Your task to perform on an android device: turn off javascript in the chrome app Image 0: 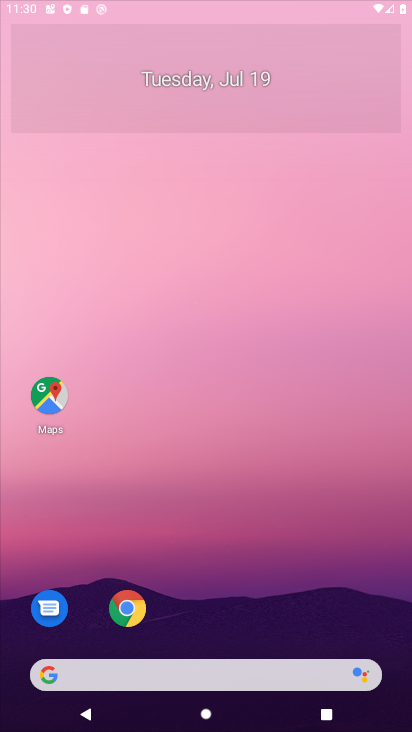
Step 0: press home button
Your task to perform on an android device: turn off javascript in the chrome app Image 1: 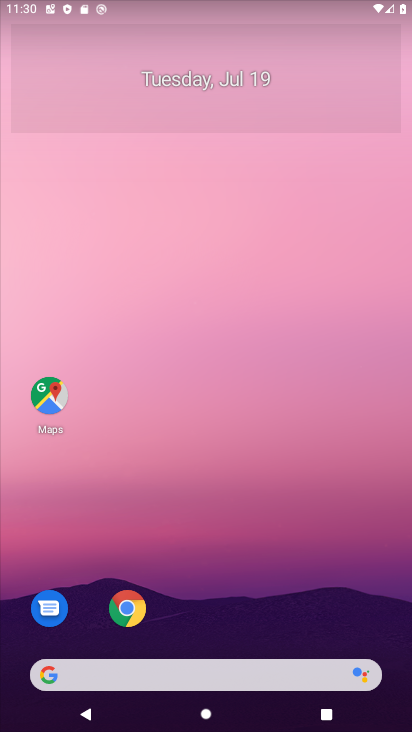
Step 1: click (125, 601)
Your task to perform on an android device: turn off javascript in the chrome app Image 2: 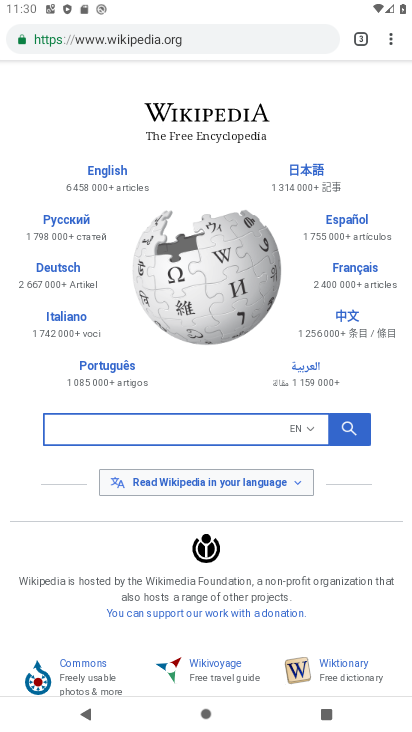
Step 2: drag from (388, 38) to (268, 519)
Your task to perform on an android device: turn off javascript in the chrome app Image 3: 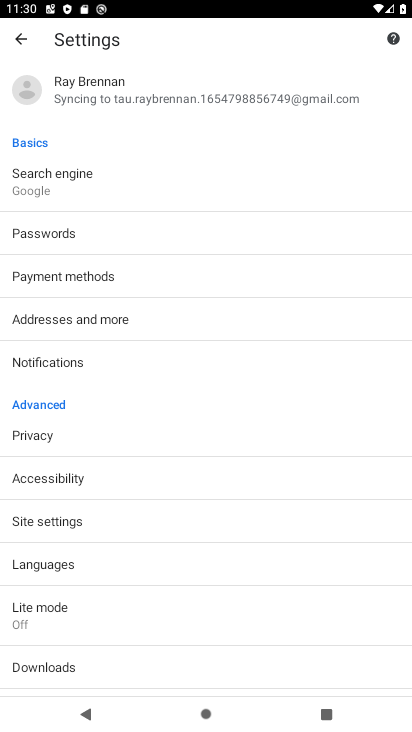
Step 3: click (63, 515)
Your task to perform on an android device: turn off javascript in the chrome app Image 4: 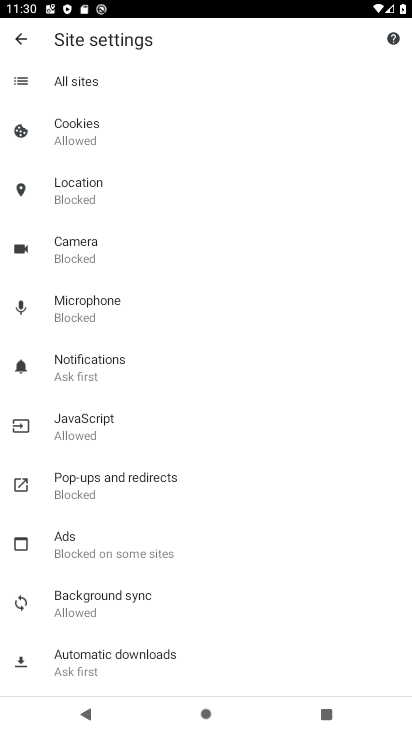
Step 4: click (92, 425)
Your task to perform on an android device: turn off javascript in the chrome app Image 5: 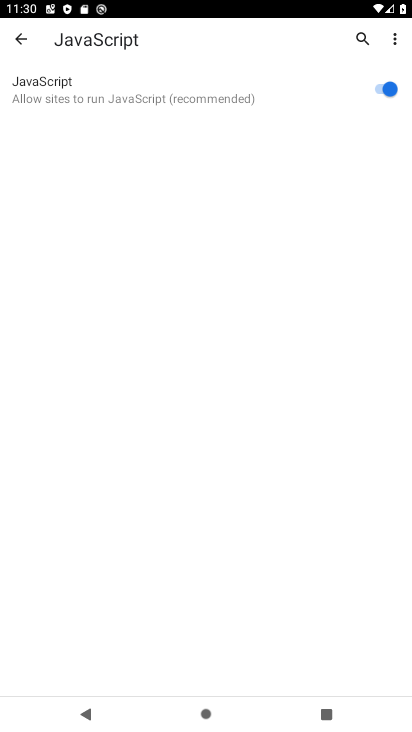
Step 5: click (383, 88)
Your task to perform on an android device: turn off javascript in the chrome app Image 6: 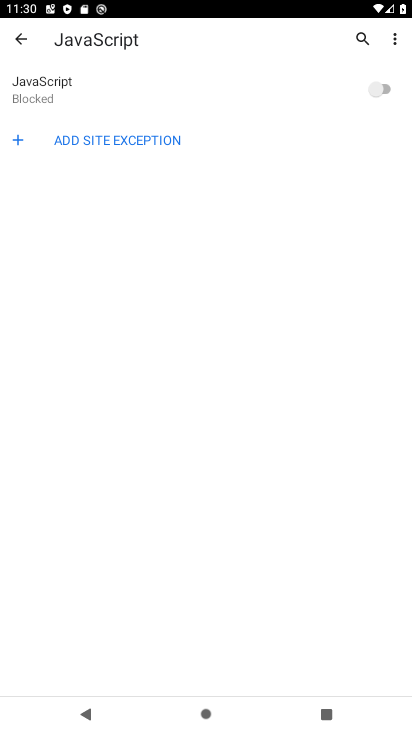
Step 6: task complete